Your task to perform on an android device: Open eBay Image 0: 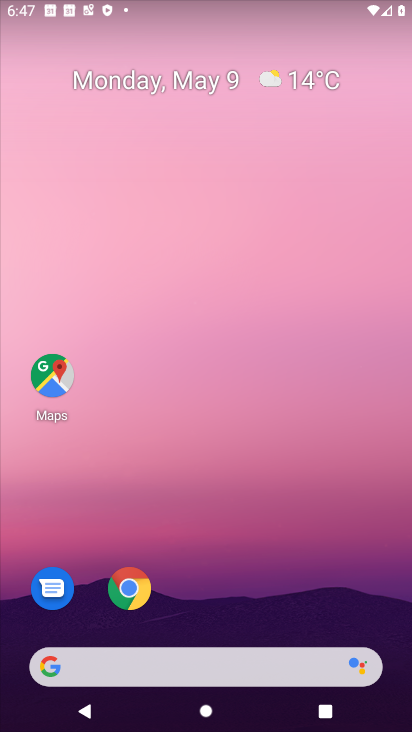
Step 0: drag from (296, 619) to (191, 77)
Your task to perform on an android device: Open eBay Image 1: 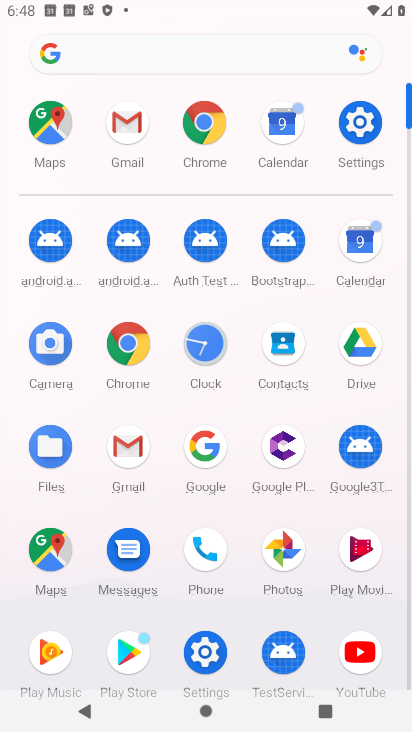
Step 1: click (201, 110)
Your task to perform on an android device: Open eBay Image 2: 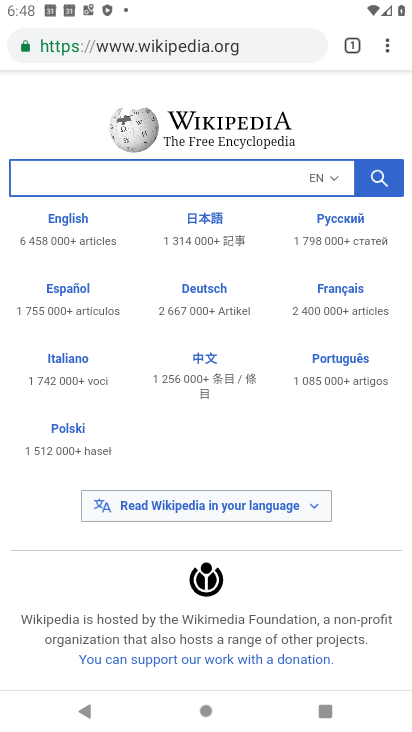
Step 2: press back button
Your task to perform on an android device: Open eBay Image 3: 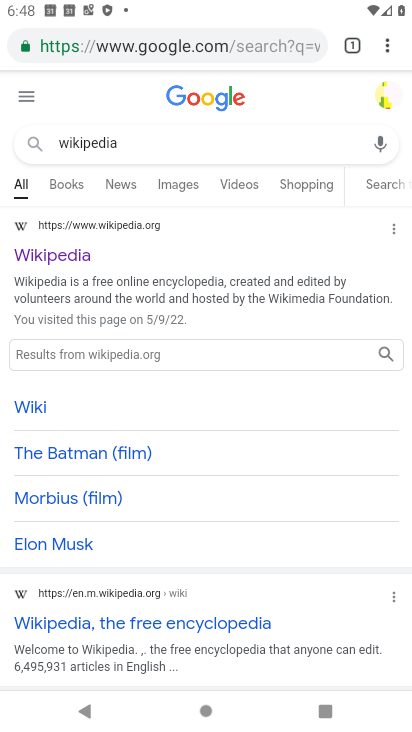
Step 3: press back button
Your task to perform on an android device: Open eBay Image 4: 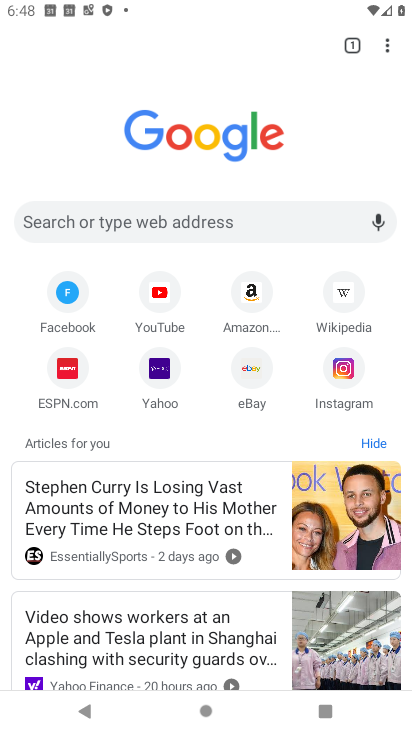
Step 4: click (259, 368)
Your task to perform on an android device: Open eBay Image 5: 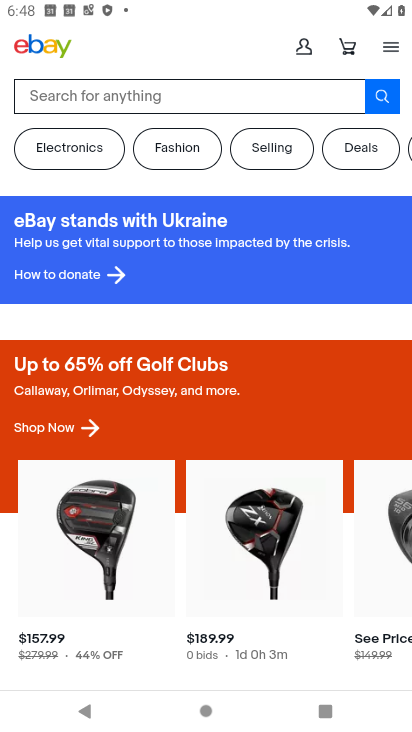
Step 5: task complete